Your task to perform on an android device: turn on notifications settings in the gmail app Image 0: 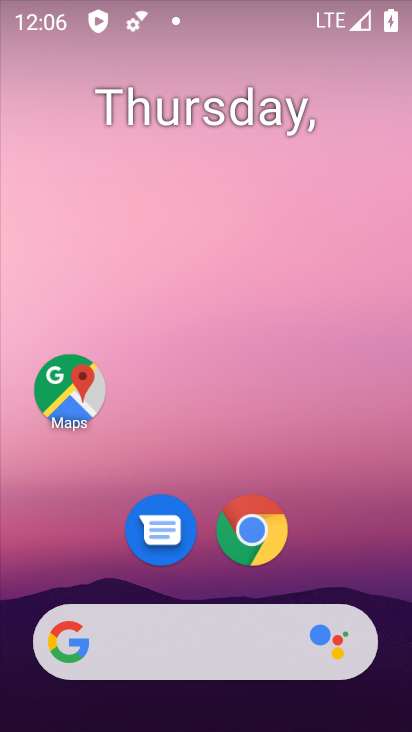
Step 0: drag from (222, 635) to (207, 59)
Your task to perform on an android device: turn on notifications settings in the gmail app Image 1: 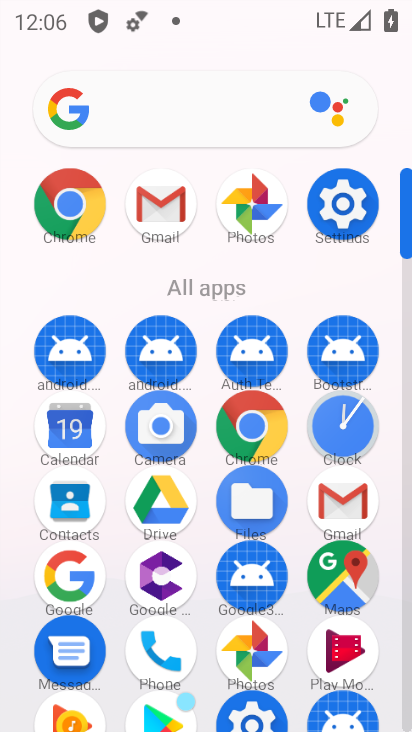
Step 1: click (154, 220)
Your task to perform on an android device: turn on notifications settings in the gmail app Image 2: 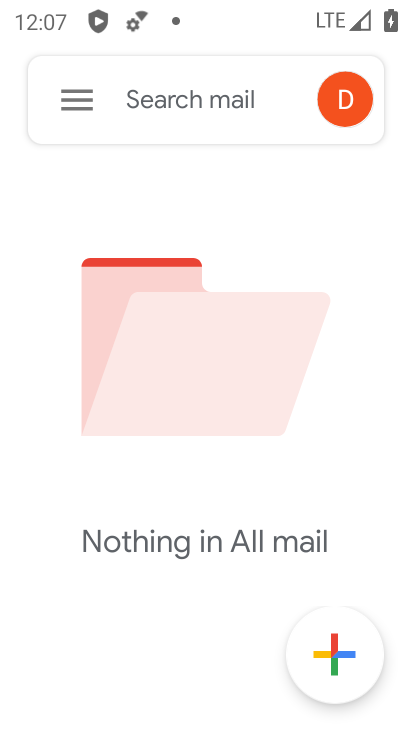
Step 2: click (70, 114)
Your task to perform on an android device: turn on notifications settings in the gmail app Image 3: 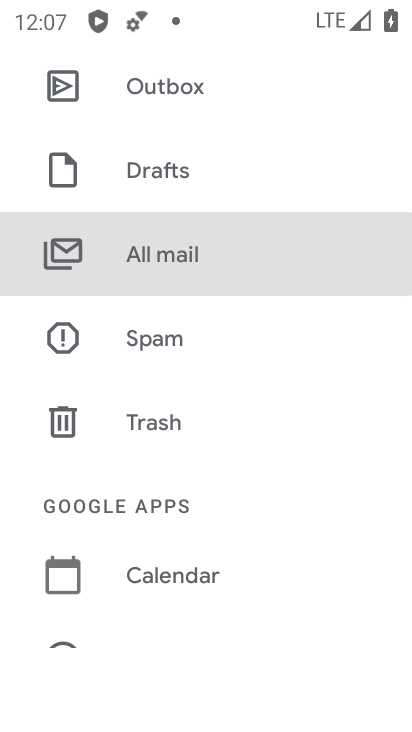
Step 3: drag from (159, 591) to (128, 94)
Your task to perform on an android device: turn on notifications settings in the gmail app Image 4: 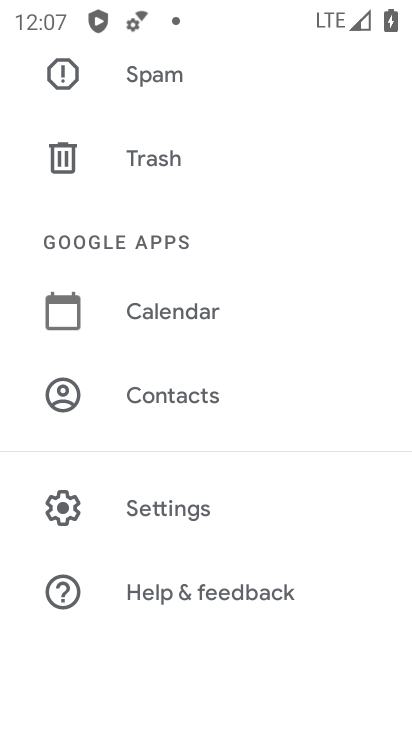
Step 4: click (142, 517)
Your task to perform on an android device: turn on notifications settings in the gmail app Image 5: 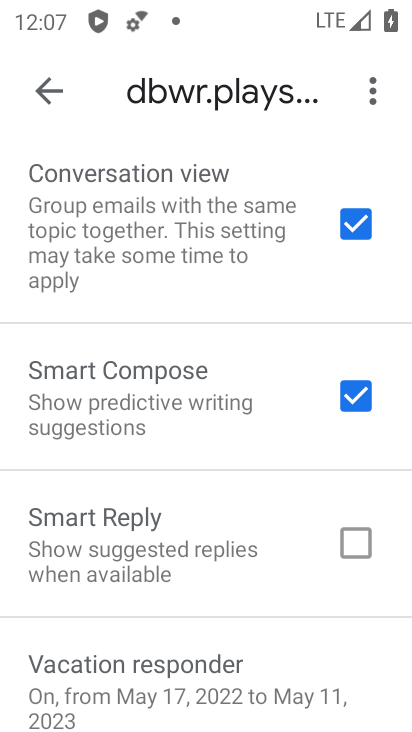
Step 5: drag from (144, 220) to (135, 729)
Your task to perform on an android device: turn on notifications settings in the gmail app Image 6: 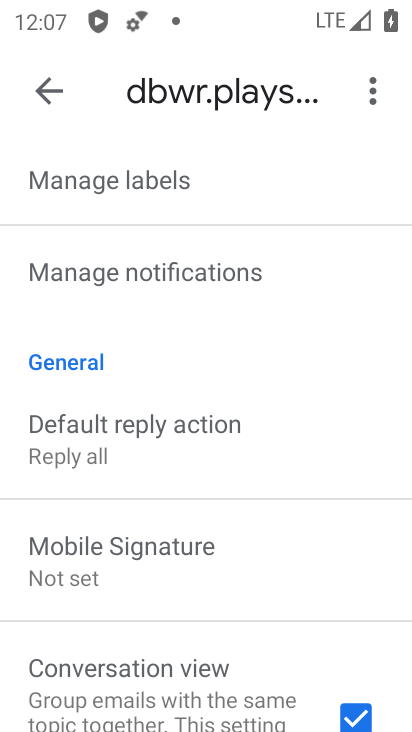
Step 6: click (121, 275)
Your task to perform on an android device: turn on notifications settings in the gmail app Image 7: 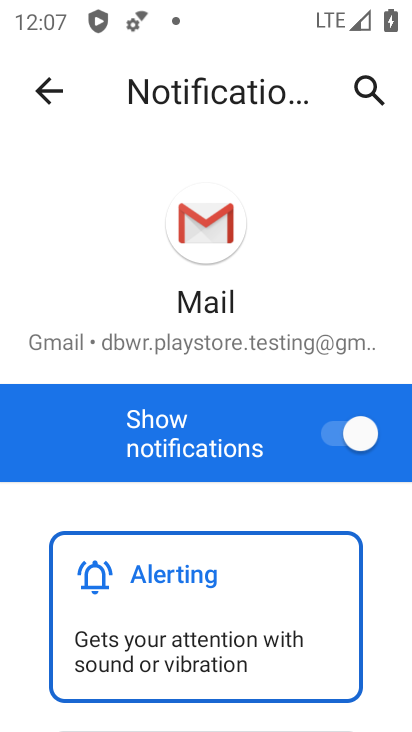
Step 7: task complete